Your task to perform on an android device: turn on the 24-hour format for clock Image 0: 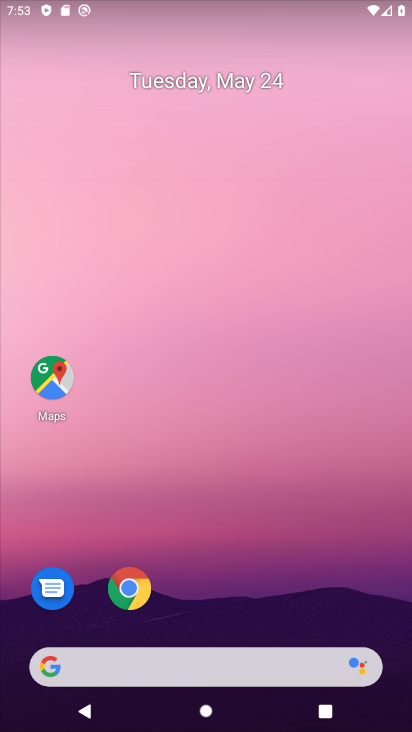
Step 0: drag from (201, 620) to (386, 41)
Your task to perform on an android device: turn on the 24-hour format for clock Image 1: 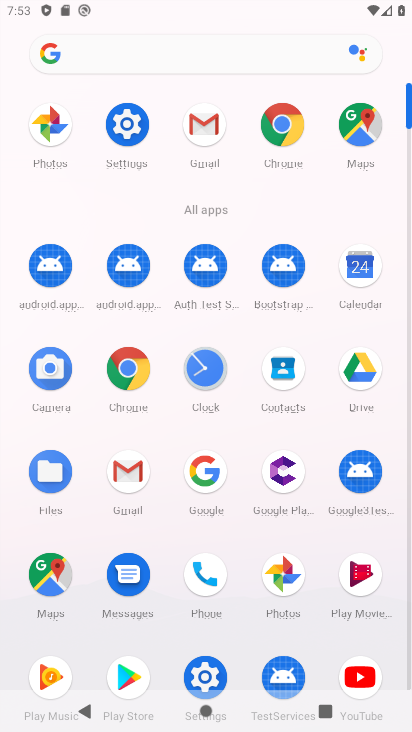
Step 1: click (209, 369)
Your task to perform on an android device: turn on the 24-hour format for clock Image 2: 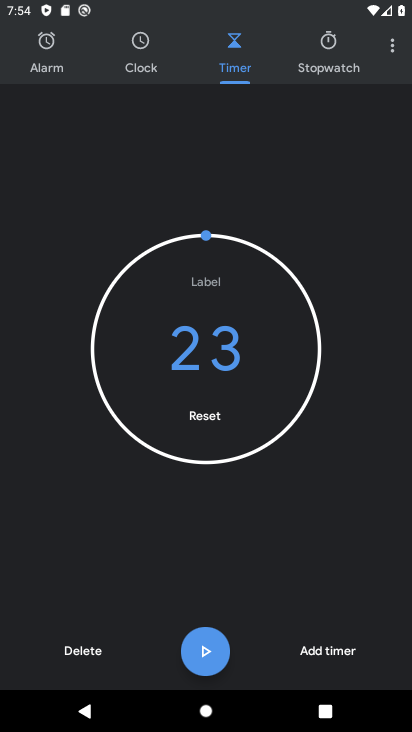
Step 2: click (383, 39)
Your task to perform on an android device: turn on the 24-hour format for clock Image 3: 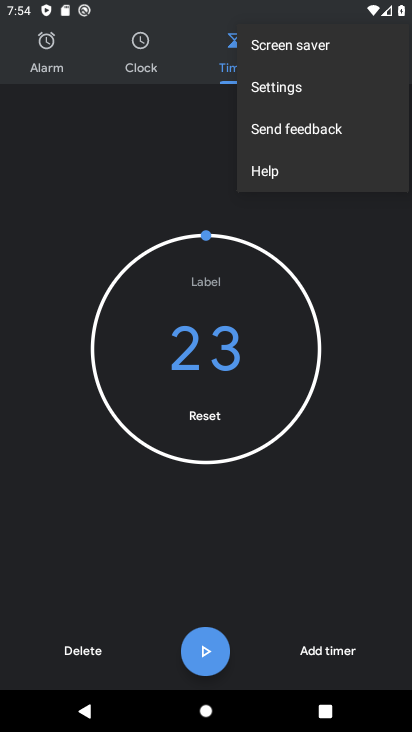
Step 3: click (278, 84)
Your task to perform on an android device: turn on the 24-hour format for clock Image 4: 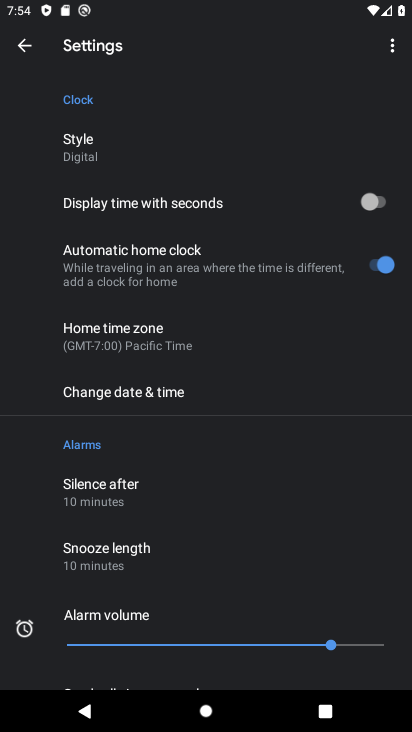
Step 4: click (168, 389)
Your task to perform on an android device: turn on the 24-hour format for clock Image 5: 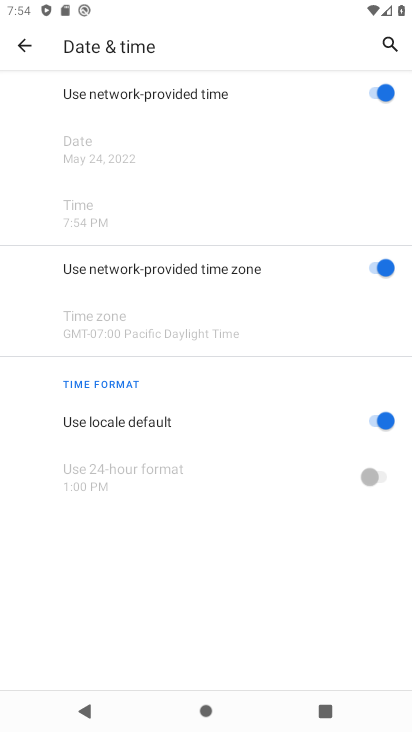
Step 5: drag from (234, 518) to (337, 160)
Your task to perform on an android device: turn on the 24-hour format for clock Image 6: 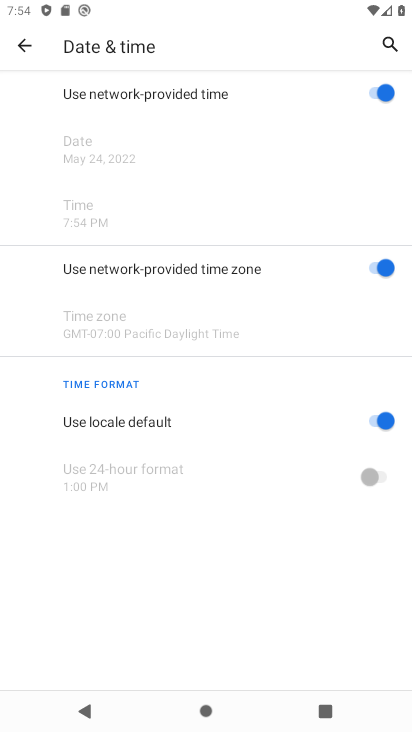
Step 6: drag from (236, 570) to (267, 424)
Your task to perform on an android device: turn on the 24-hour format for clock Image 7: 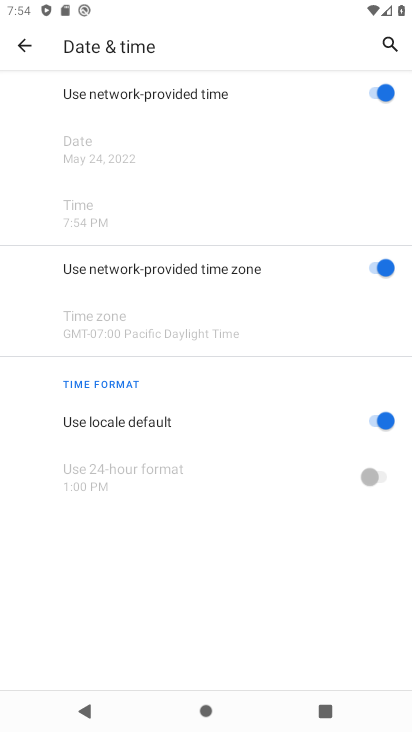
Step 7: click (390, 417)
Your task to perform on an android device: turn on the 24-hour format for clock Image 8: 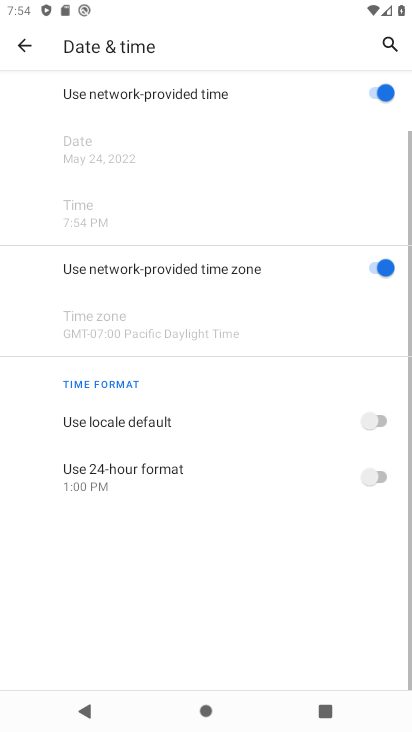
Step 8: click (373, 474)
Your task to perform on an android device: turn on the 24-hour format for clock Image 9: 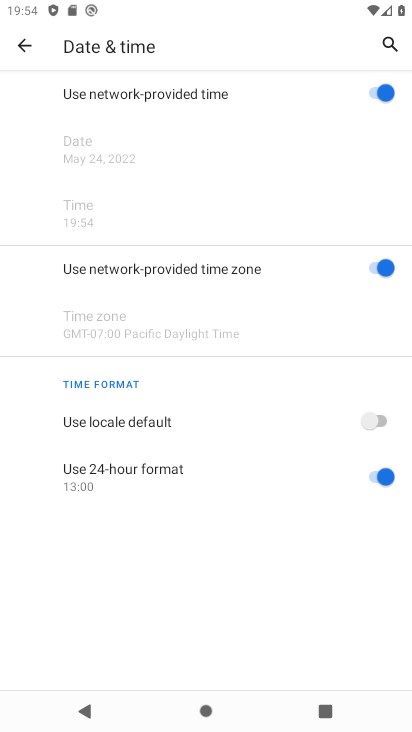
Step 9: task complete